Your task to perform on an android device: open sync settings in chrome Image 0: 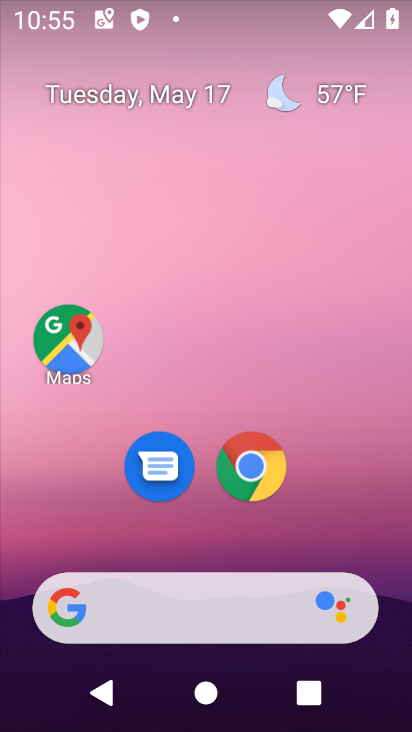
Step 0: press home button
Your task to perform on an android device: open sync settings in chrome Image 1: 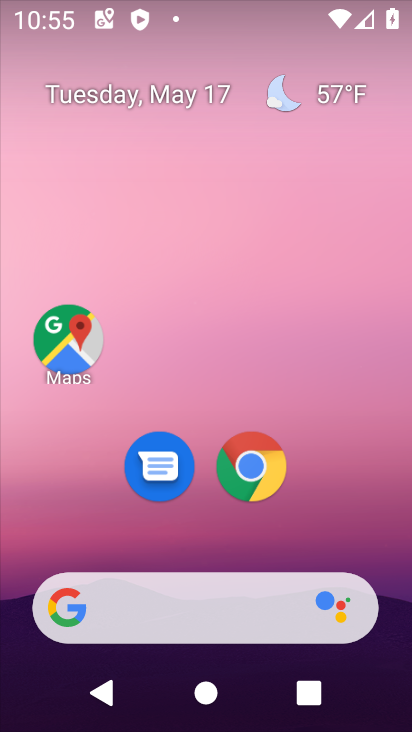
Step 1: drag from (269, 632) to (404, 199)
Your task to perform on an android device: open sync settings in chrome Image 2: 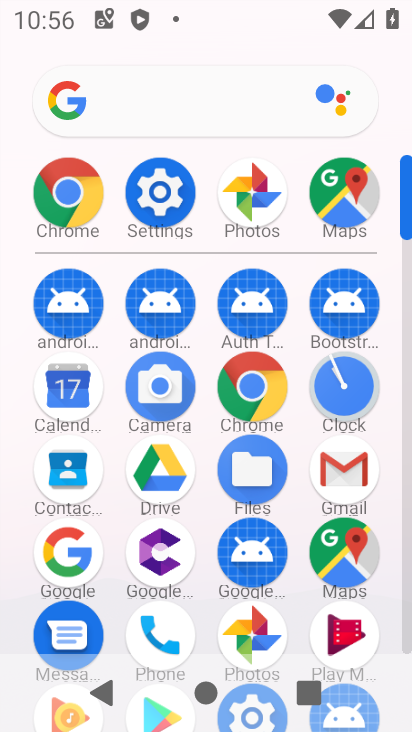
Step 2: click (93, 200)
Your task to perform on an android device: open sync settings in chrome Image 3: 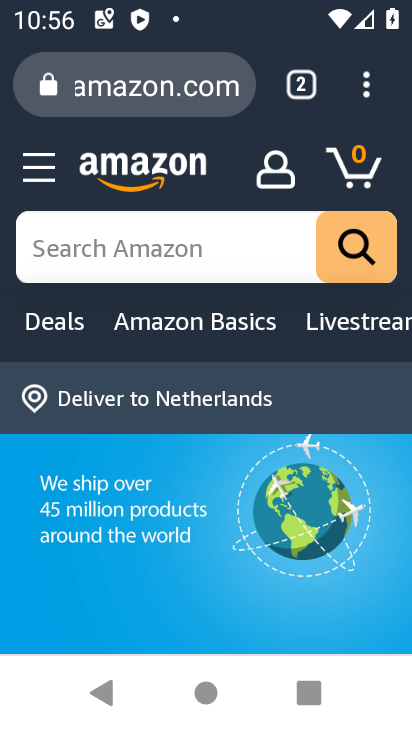
Step 3: click (359, 101)
Your task to perform on an android device: open sync settings in chrome Image 4: 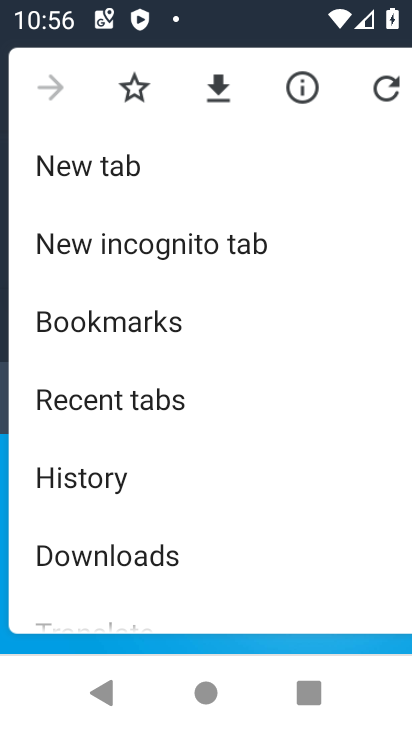
Step 4: drag from (136, 529) to (209, 307)
Your task to perform on an android device: open sync settings in chrome Image 5: 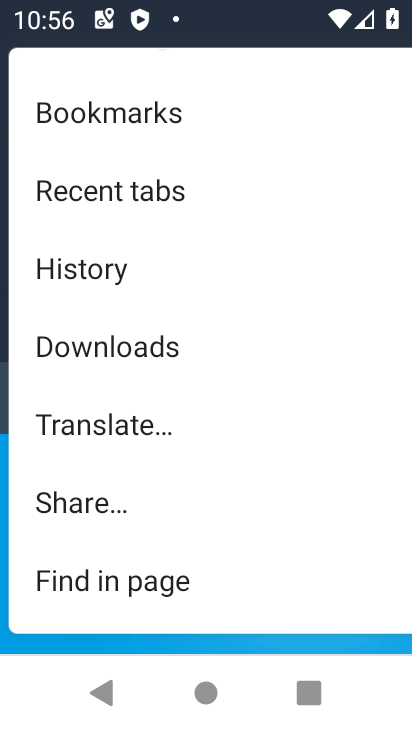
Step 5: drag from (145, 478) to (255, 204)
Your task to perform on an android device: open sync settings in chrome Image 6: 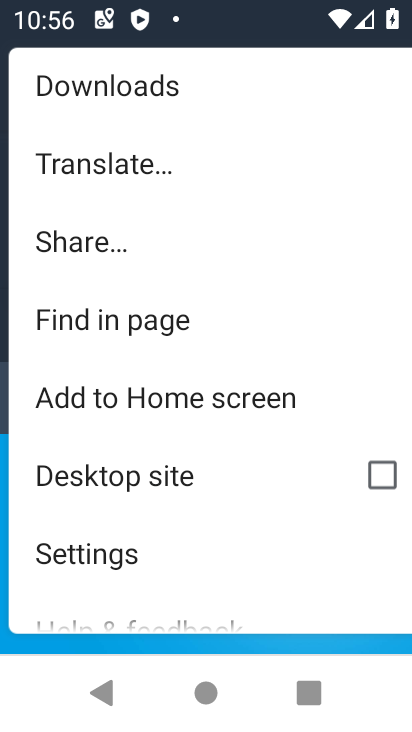
Step 6: click (118, 558)
Your task to perform on an android device: open sync settings in chrome Image 7: 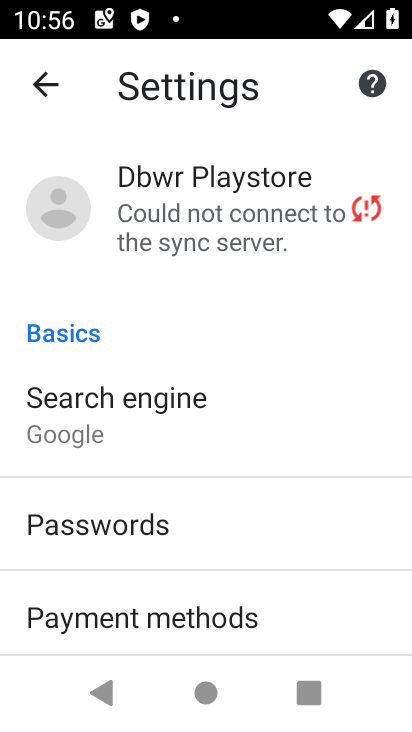
Step 7: drag from (152, 570) to (188, 388)
Your task to perform on an android device: open sync settings in chrome Image 8: 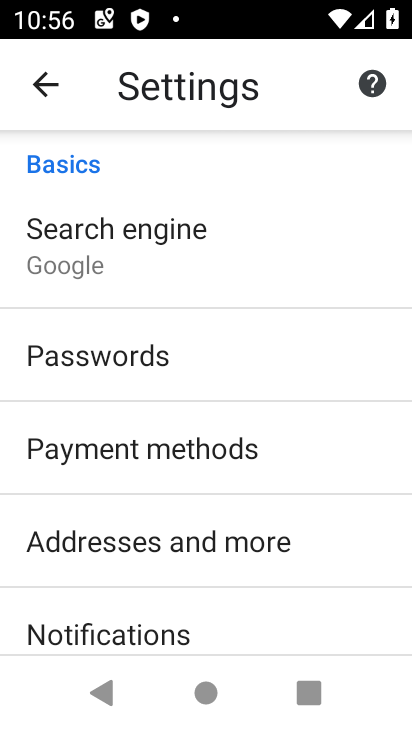
Step 8: drag from (172, 620) to (223, 441)
Your task to perform on an android device: open sync settings in chrome Image 9: 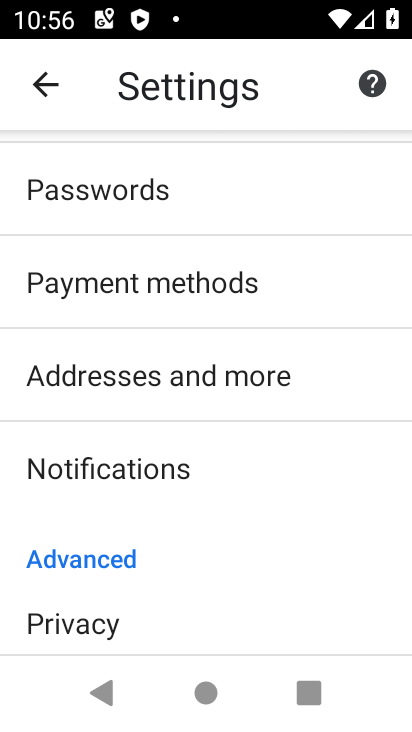
Step 9: drag from (175, 632) to (249, 370)
Your task to perform on an android device: open sync settings in chrome Image 10: 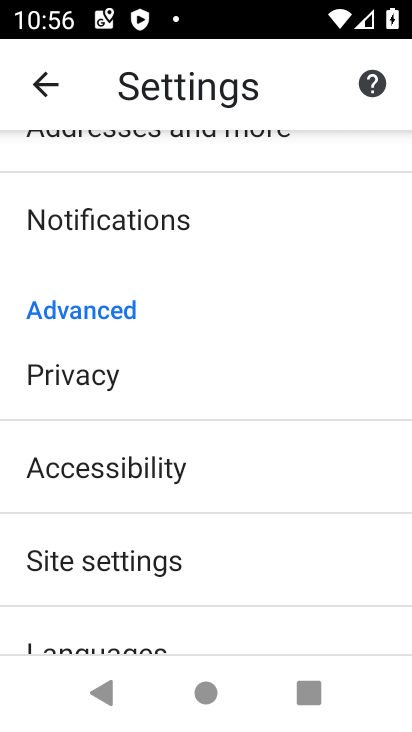
Step 10: click (131, 560)
Your task to perform on an android device: open sync settings in chrome Image 11: 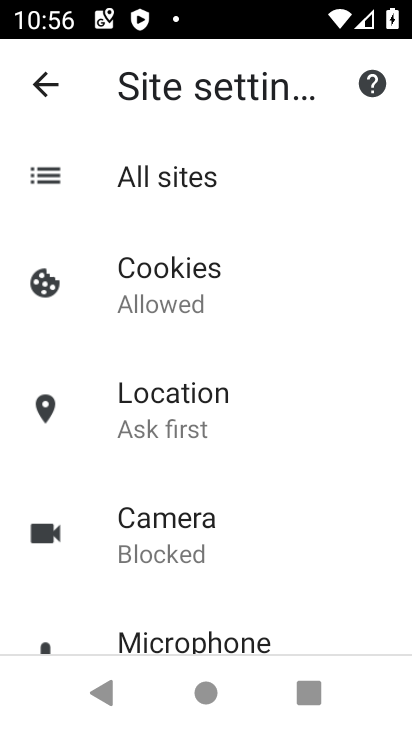
Step 11: drag from (137, 591) to (284, 337)
Your task to perform on an android device: open sync settings in chrome Image 12: 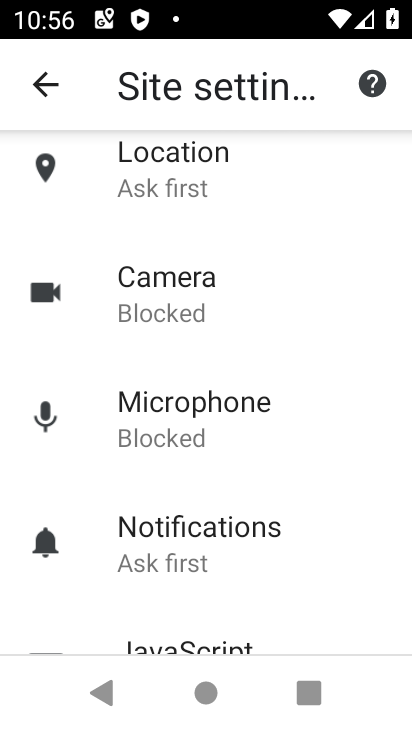
Step 12: drag from (209, 586) to (262, 333)
Your task to perform on an android device: open sync settings in chrome Image 13: 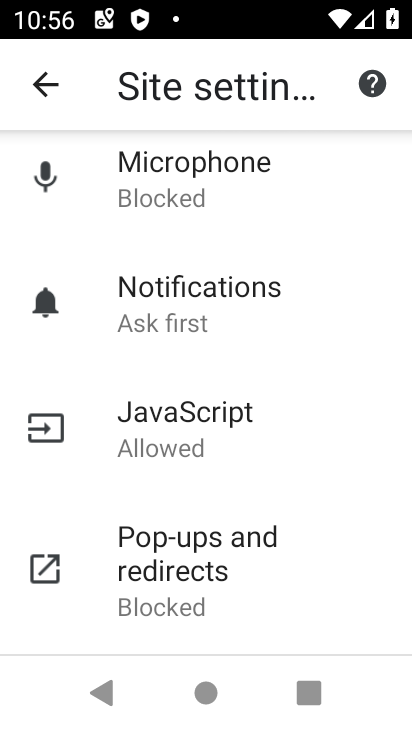
Step 13: drag from (206, 548) to (306, 250)
Your task to perform on an android device: open sync settings in chrome Image 14: 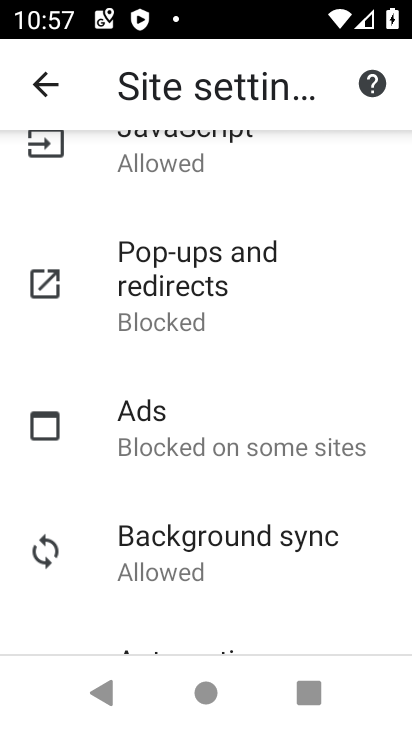
Step 14: click (202, 552)
Your task to perform on an android device: open sync settings in chrome Image 15: 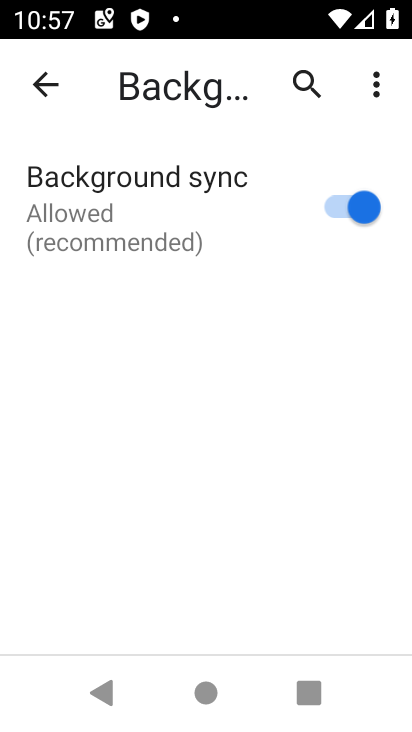
Step 15: task complete